Your task to perform on an android device: Open Maps and search for coffee Image 0: 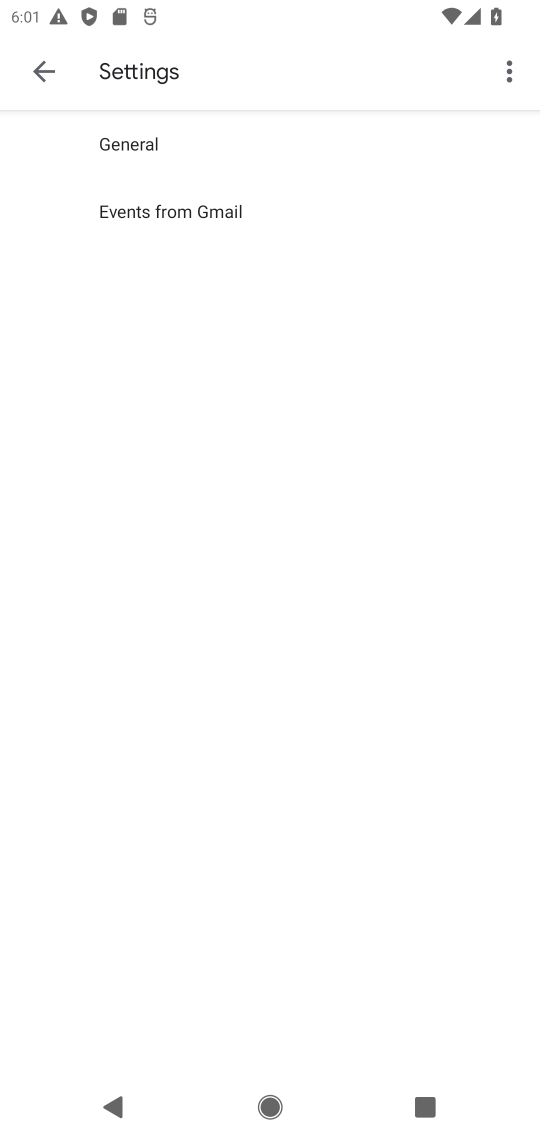
Step 0: press home button
Your task to perform on an android device: Open Maps and search for coffee Image 1: 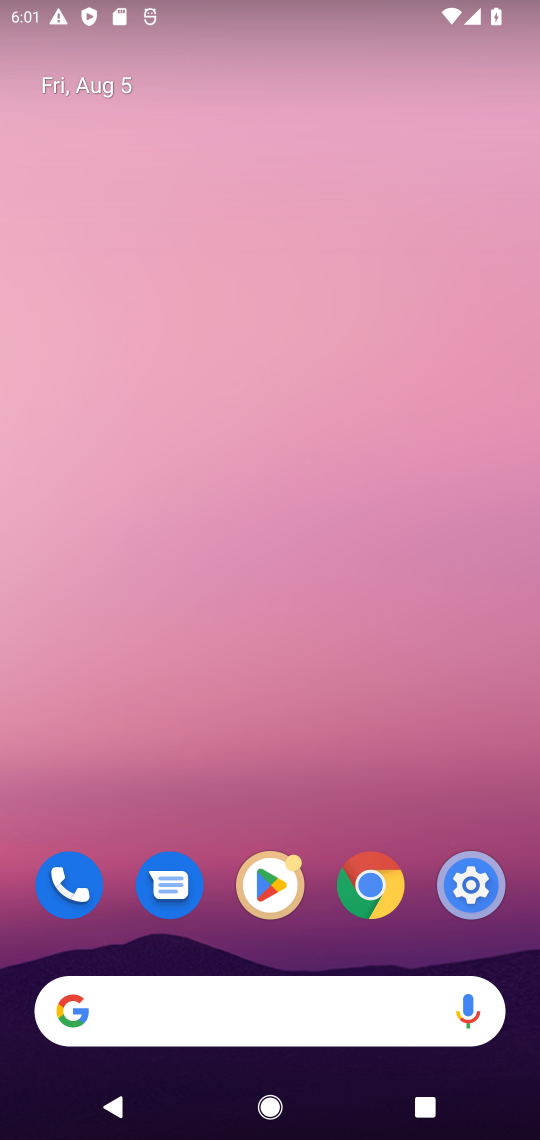
Step 1: drag from (266, 868) to (365, 7)
Your task to perform on an android device: Open Maps and search for coffee Image 2: 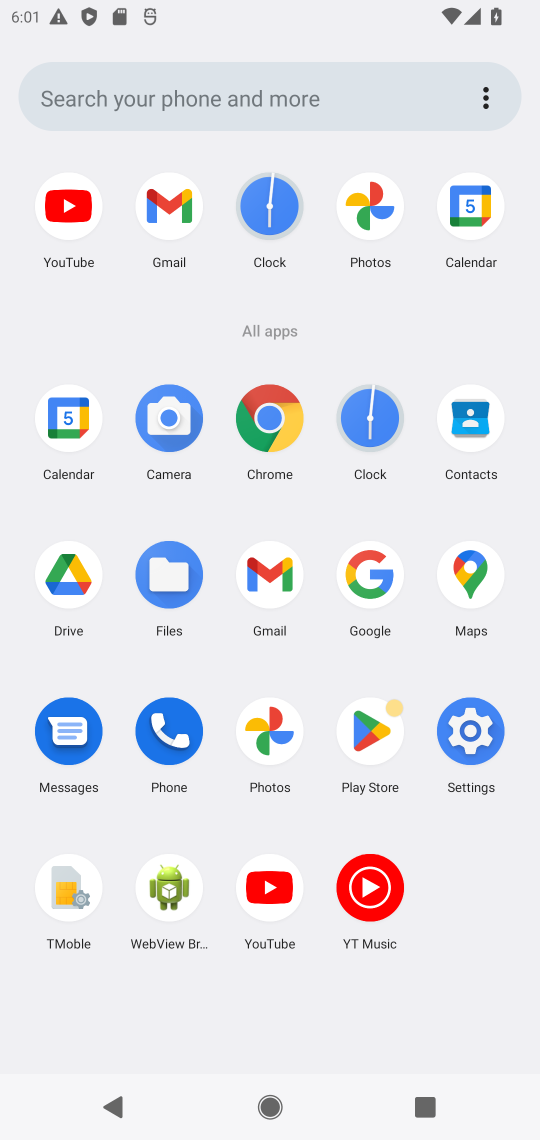
Step 2: click (476, 580)
Your task to perform on an android device: Open Maps and search for coffee Image 3: 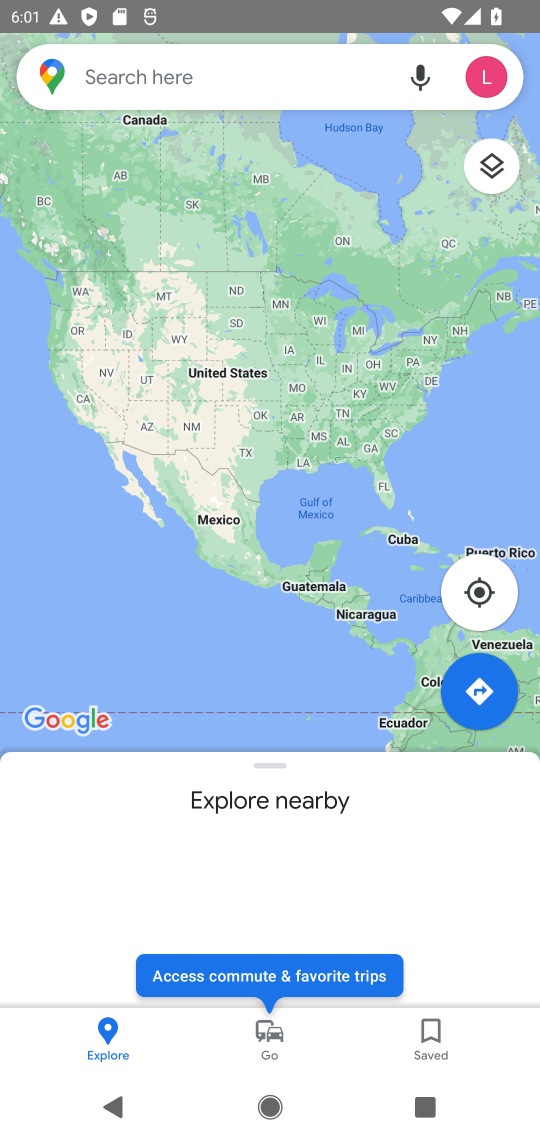
Step 3: click (266, 67)
Your task to perform on an android device: Open Maps and search for coffee Image 4: 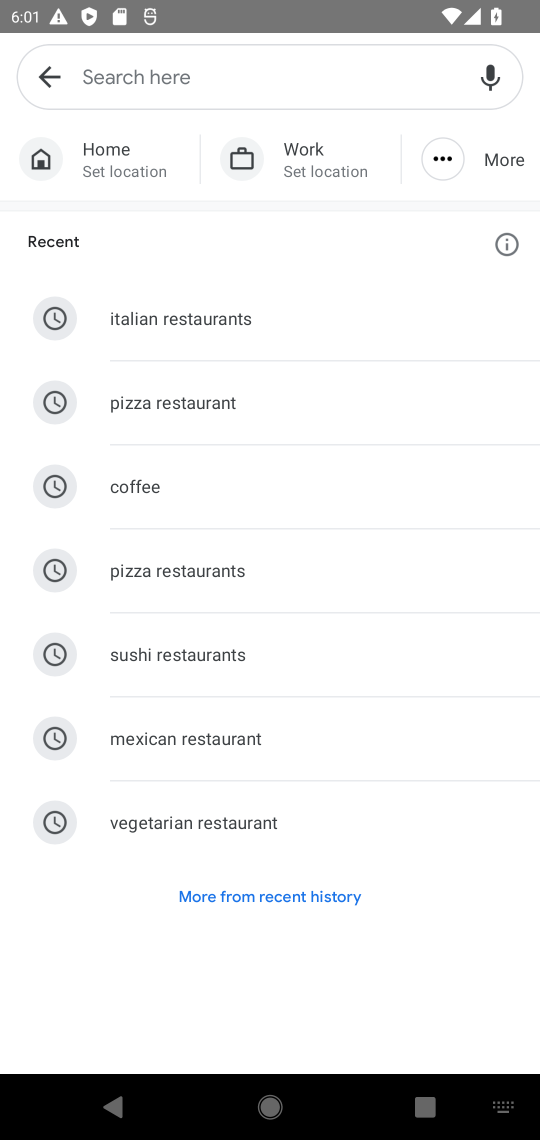
Step 4: type "coffee"
Your task to perform on an android device: Open Maps and search for coffee Image 5: 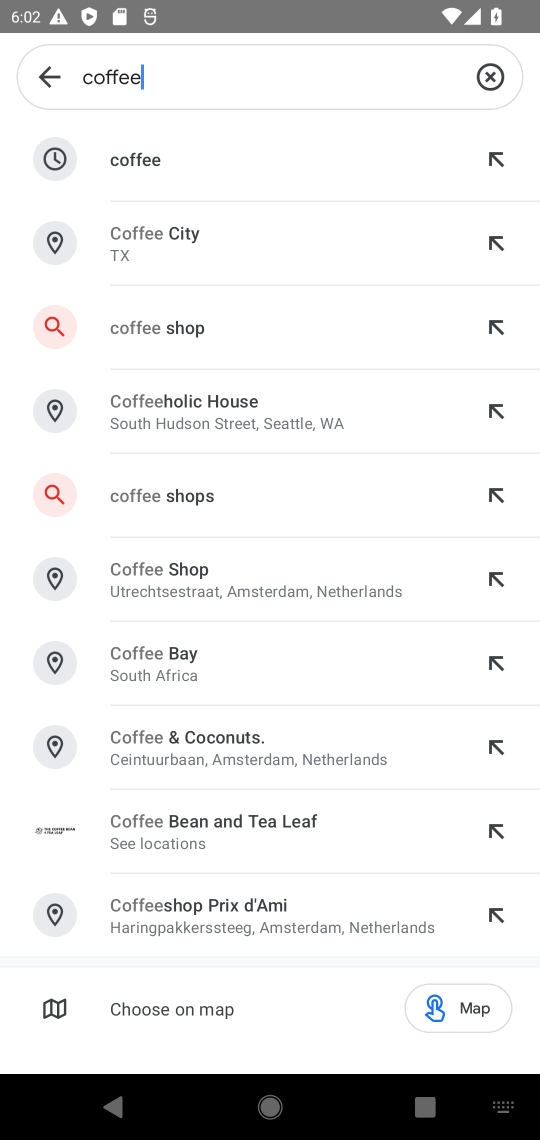
Step 5: click (187, 168)
Your task to perform on an android device: Open Maps and search for coffee Image 6: 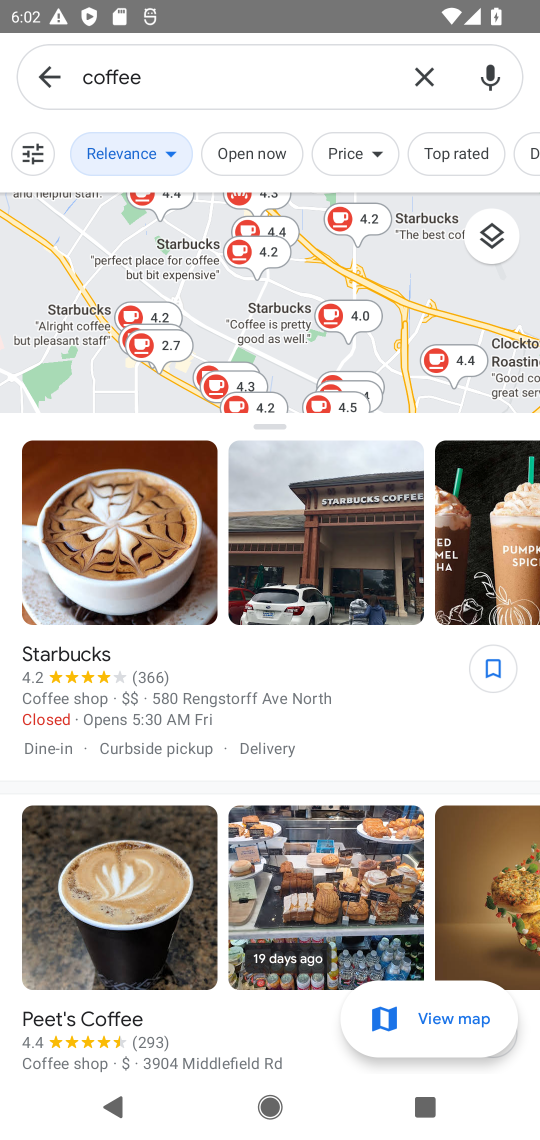
Step 6: task complete